Your task to perform on an android device: Go to wifi settings Image 0: 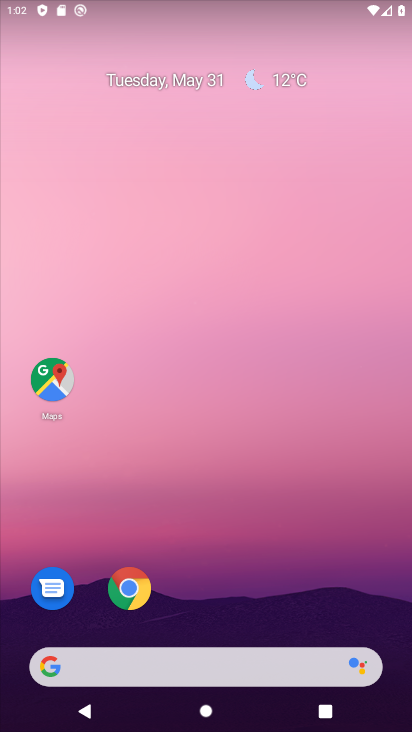
Step 0: drag from (382, 658) to (333, 153)
Your task to perform on an android device: Go to wifi settings Image 1: 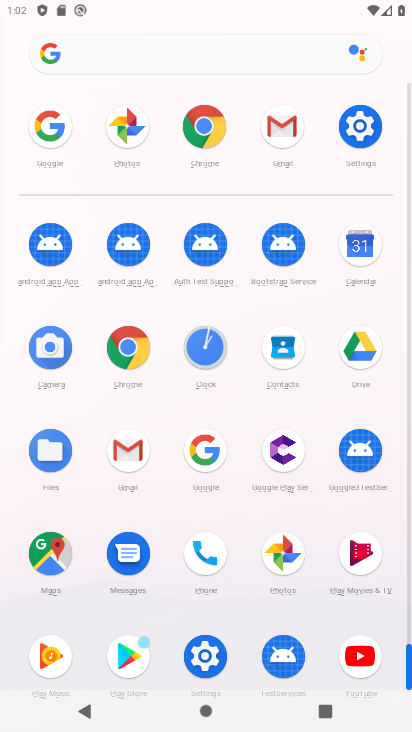
Step 1: click (201, 654)
Your task to perform on an android device: Go to wifi settings Image 2: 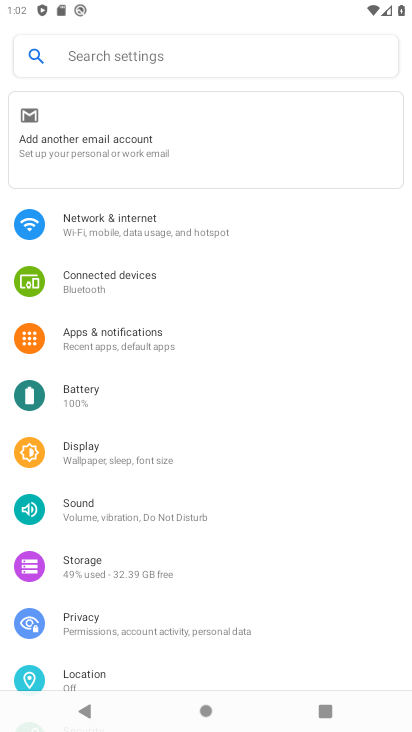
Step 2: click (107, 218)
Your task to perform on an android device: Go to wifi settings Image 3: 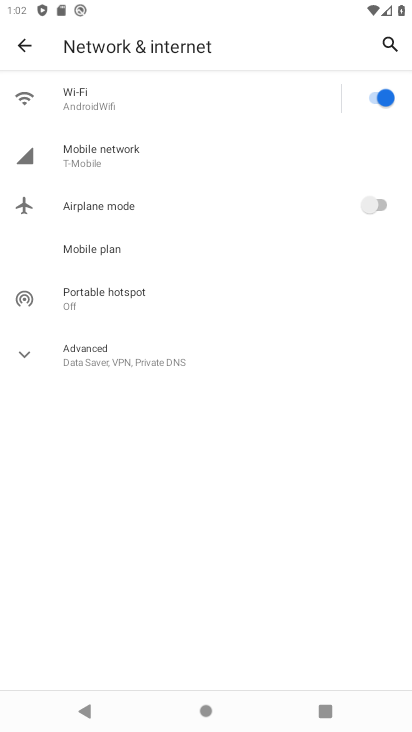
Step 3: click (102, 100)
Your task to perform on an android device: Go to wifi settings Image 4: 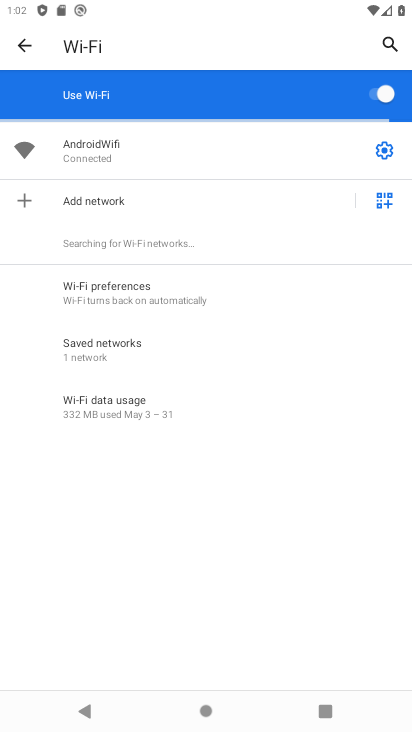
Step 4: click (376, 147)
Your task to perform on an android device: Go to wifi settings Image 5: 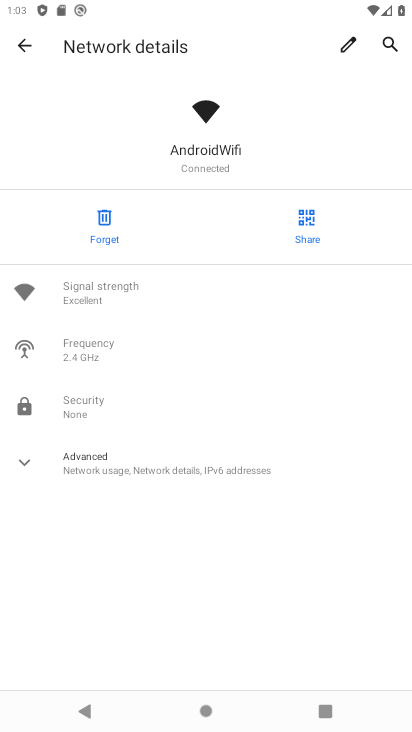
Step 5: task complete